Your task to perform on an android device: turn on data saver in the chrome app Image 0: 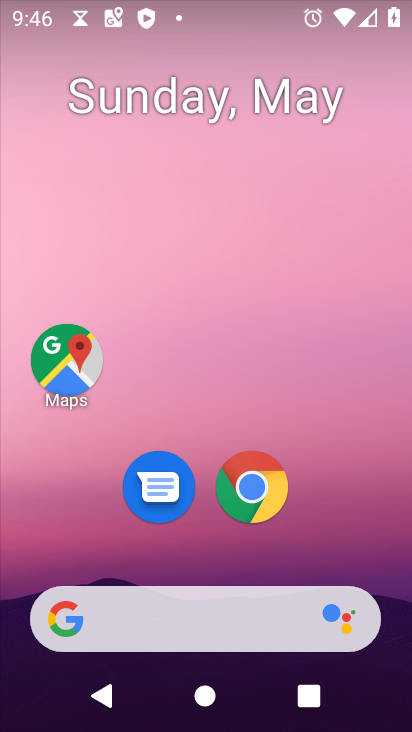
Step 0: drag from (314, 483) to (259, 8)
Your task to perform on an android device: turn on data saver in the chrome app Image 1: 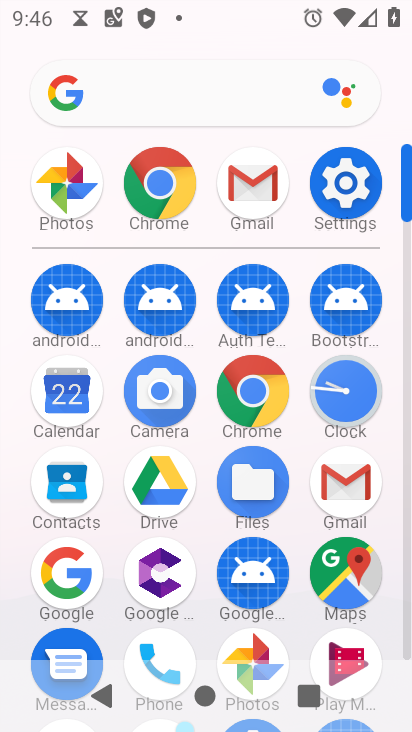
Step 1: click (144, 263)
Your task to perform on an android device: turn on data saver in the chrome app Image 2: 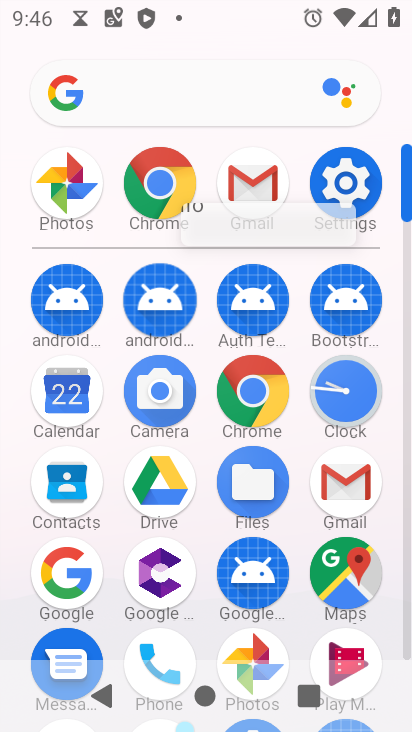
Step 2: click (153, 169)
Your task to perform on an android device: turn on data saver in the chrome app Image 3: 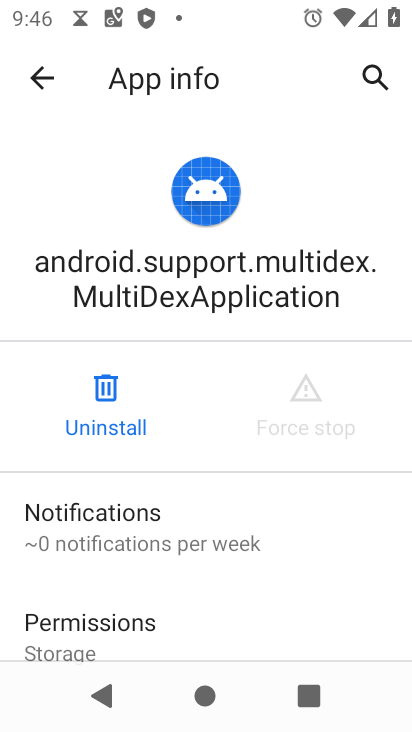
Step 3: press home button
Your task to perform on an android device: turn on data saver in the chrome app Image 4: 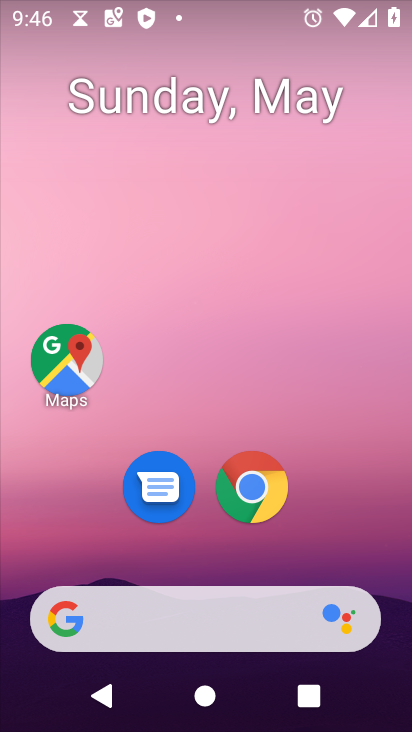
Step 4: click (245, 479)
Your task to perform on an android device: turn on data saver in the chrome app Image 5: 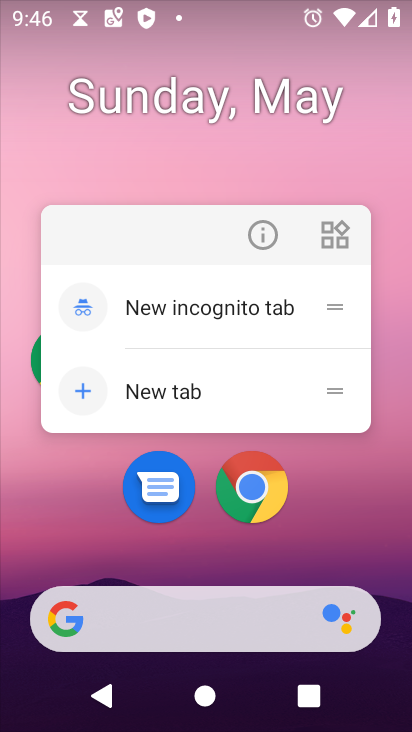
Step 5: click (245, 476)
Your task to perform on an android device: turn on data saver in the chrome app Image 6: 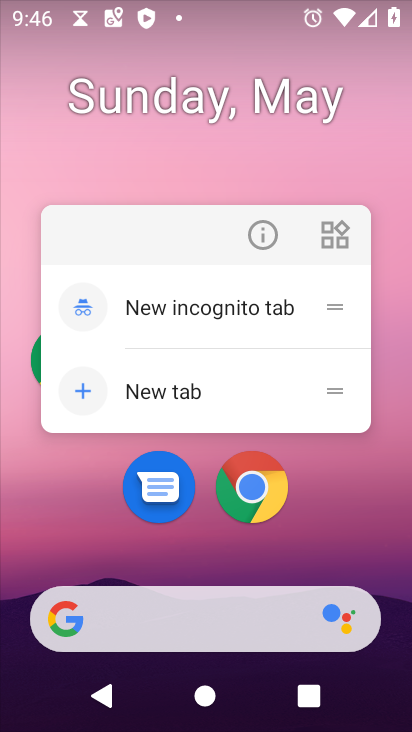
Step 6: click (262, 492)
Your task to perform on an android device: turn on data saver in the chrome app Image 7: 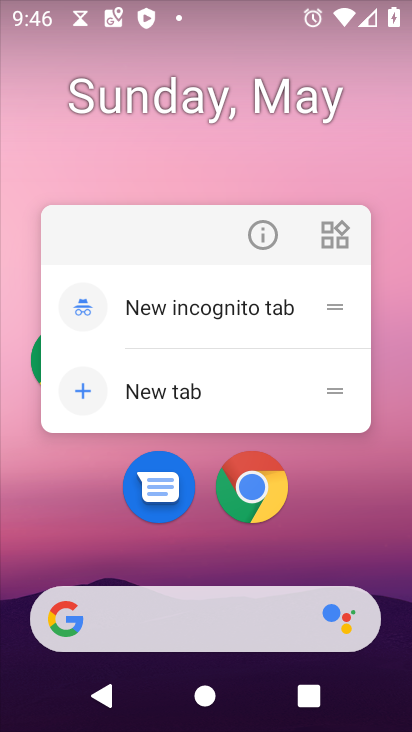
Step 7: click (261, 490)
Your task to perform on an android device: turn on data saver in the chrome app Image 8: 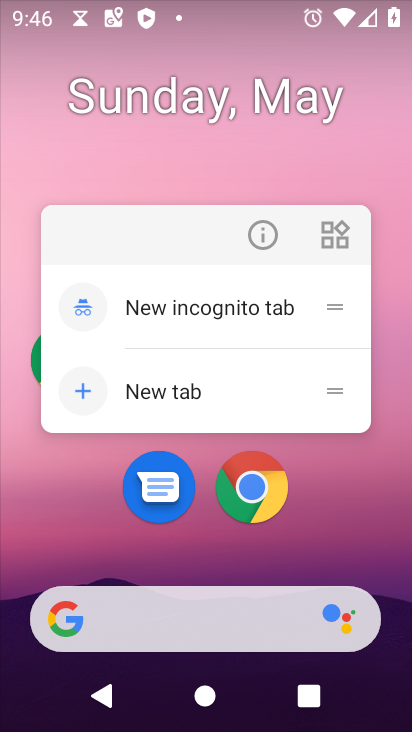
Step 8: click (261, 490)
Your task to perform on an android device: turn on data saver in the chrome app Image 9: 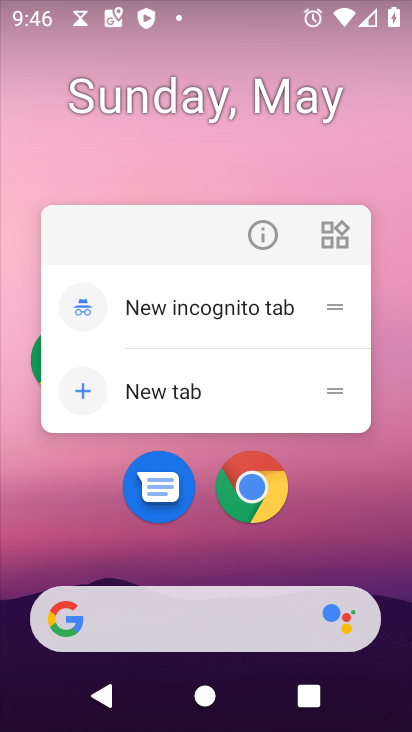
Step 9: click (334, 567)
Your task to perform on an android device: turn on data saver in the chrome app Image 10: 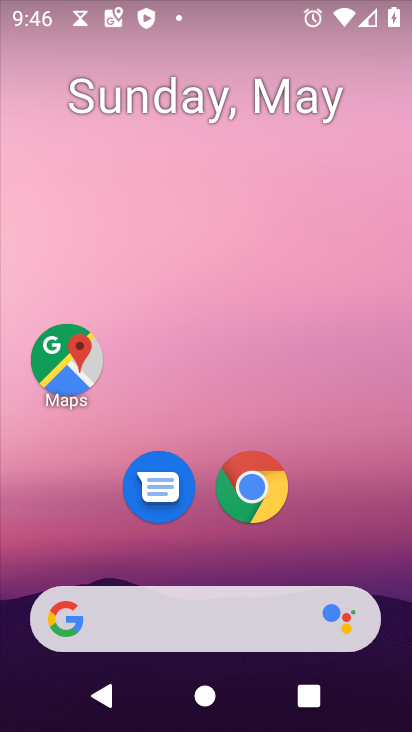
Step 10: drag from (347, 549) to (332, 47)
Your task to perform on an android device: turn on data saver in the chrome app Image 11: 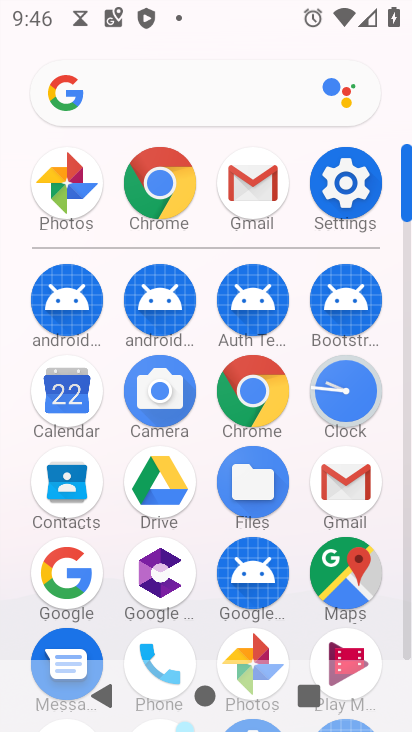
Step 11: click (249, 394)
Your task to perform on an android device: turn on data saver in the chrome app Image 12: 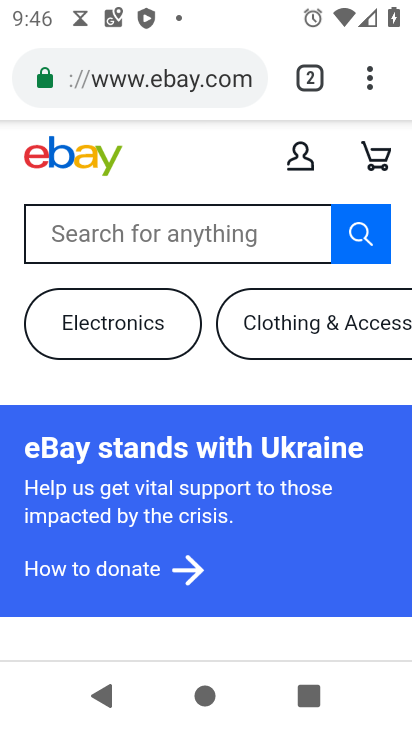
Step 12: drag from (363, 81) to (102, 566)
Your task to perform on an android device: turn on data saver in the chrome app Image 13: 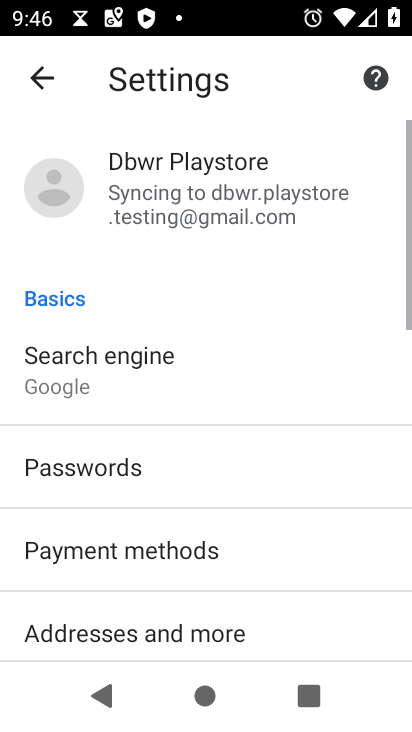
Step 13: drag from (122, 588) to (110, 291)
Your task to perform on an android device: turn on data saver in the chrome app Image 14: 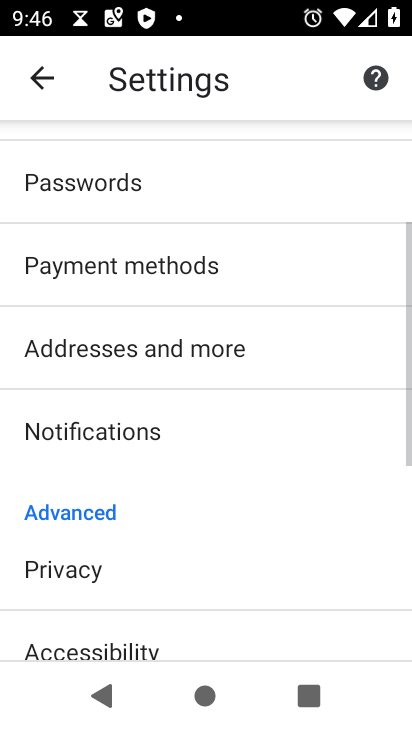
Step 14: drag from (171, 577) to (89, 300)
Your task to perform on an android device: turn on data saver in the chrome app Image 15: 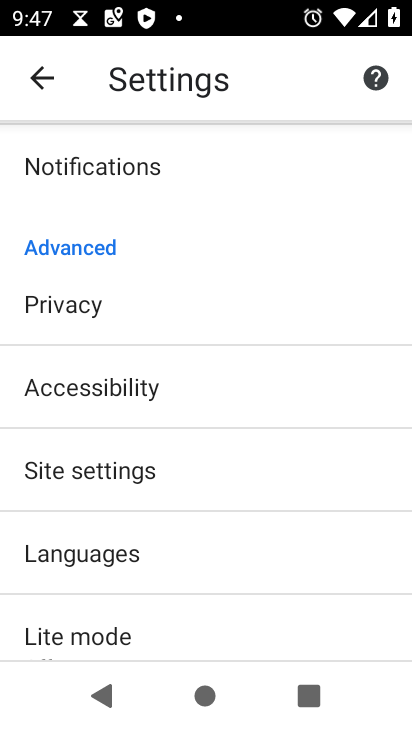
Step 15: drag from (196, 572) to (266, 239)
Your task to perform on an android device: turn on data saver in the chrome app Image 16: 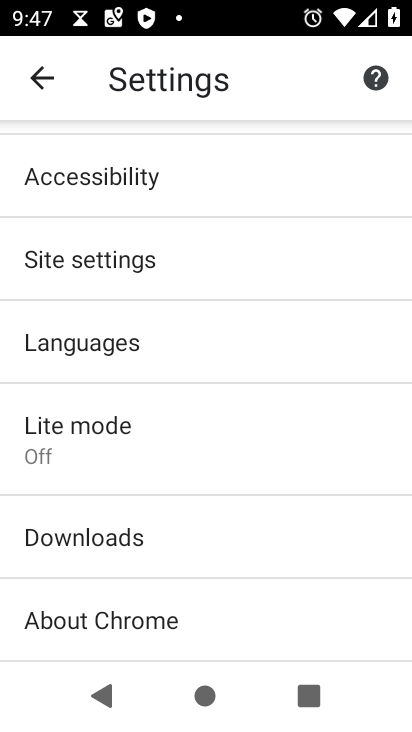
Step 16: click (65, 467)
Your task to perform on an android device: turn on data saver in the chrome app Image 17: 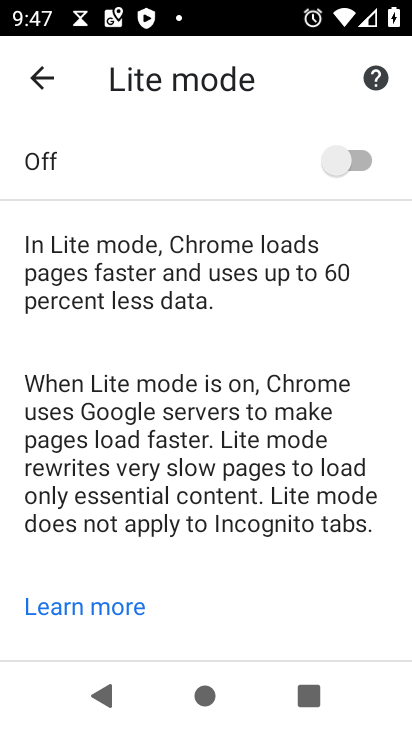
Step 17: click (367, 165)
Your task to perform on an android device: turn on data saver in the chrome app Image 18: 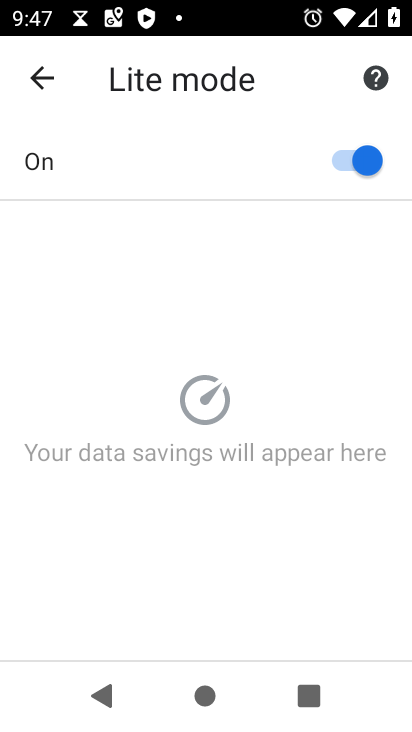
Step 18: task complete